Your task to perform on an android device: search for starred emails in the gmail app Image 0: 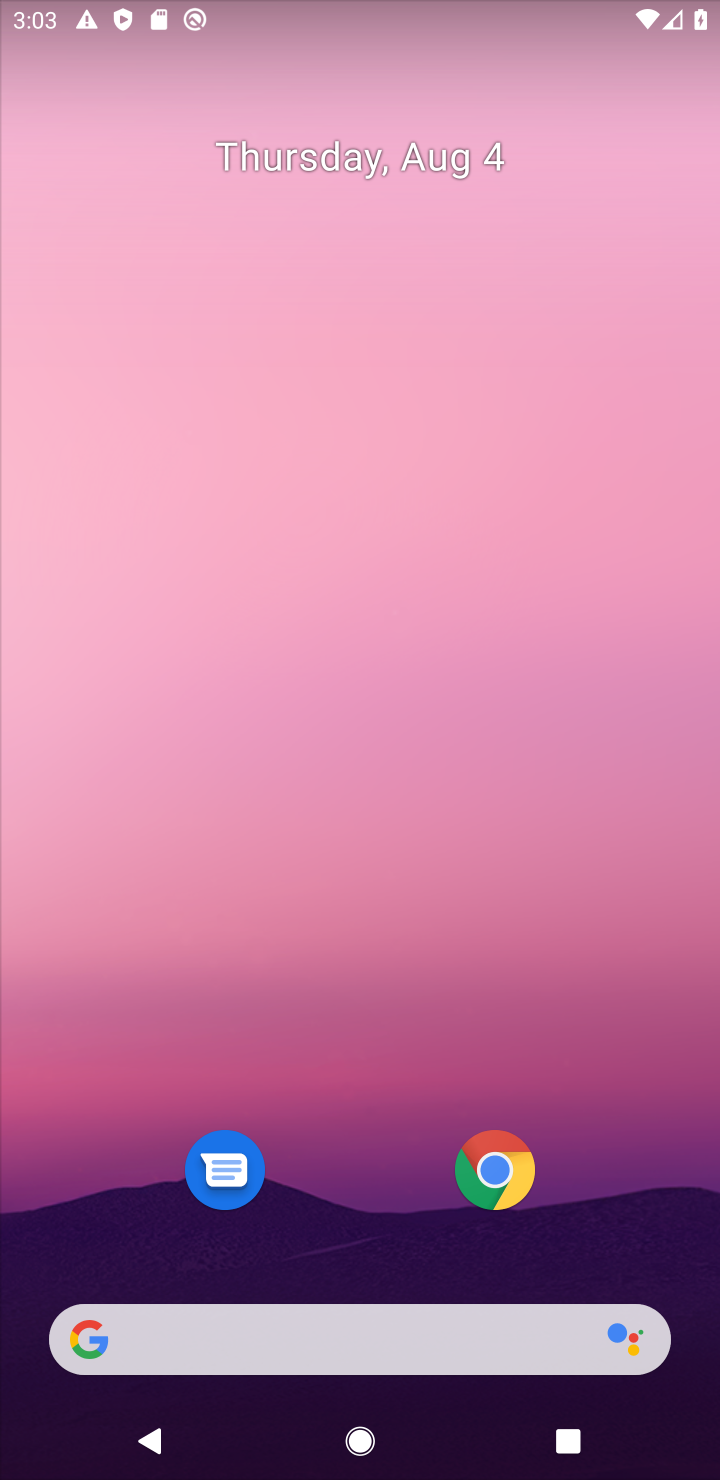
Step 0: drag from (618, 825) to (561, 198)
Your task to perform on an android device: search for starred emails in the gmail app Image 1: 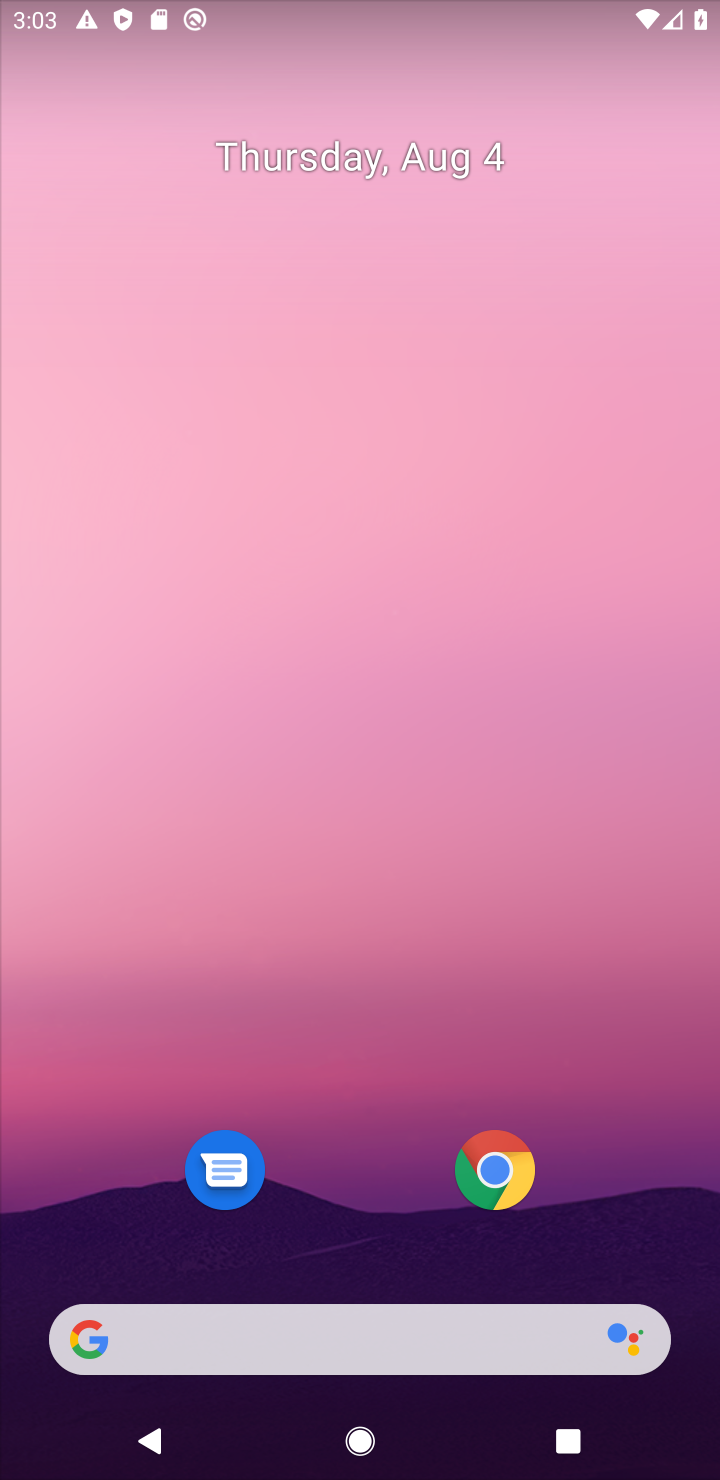
Step 1: drag from (655, 1262) to (535, 156)
Your task to perform on an android device: search for starred emails in the gmail app Image 2: 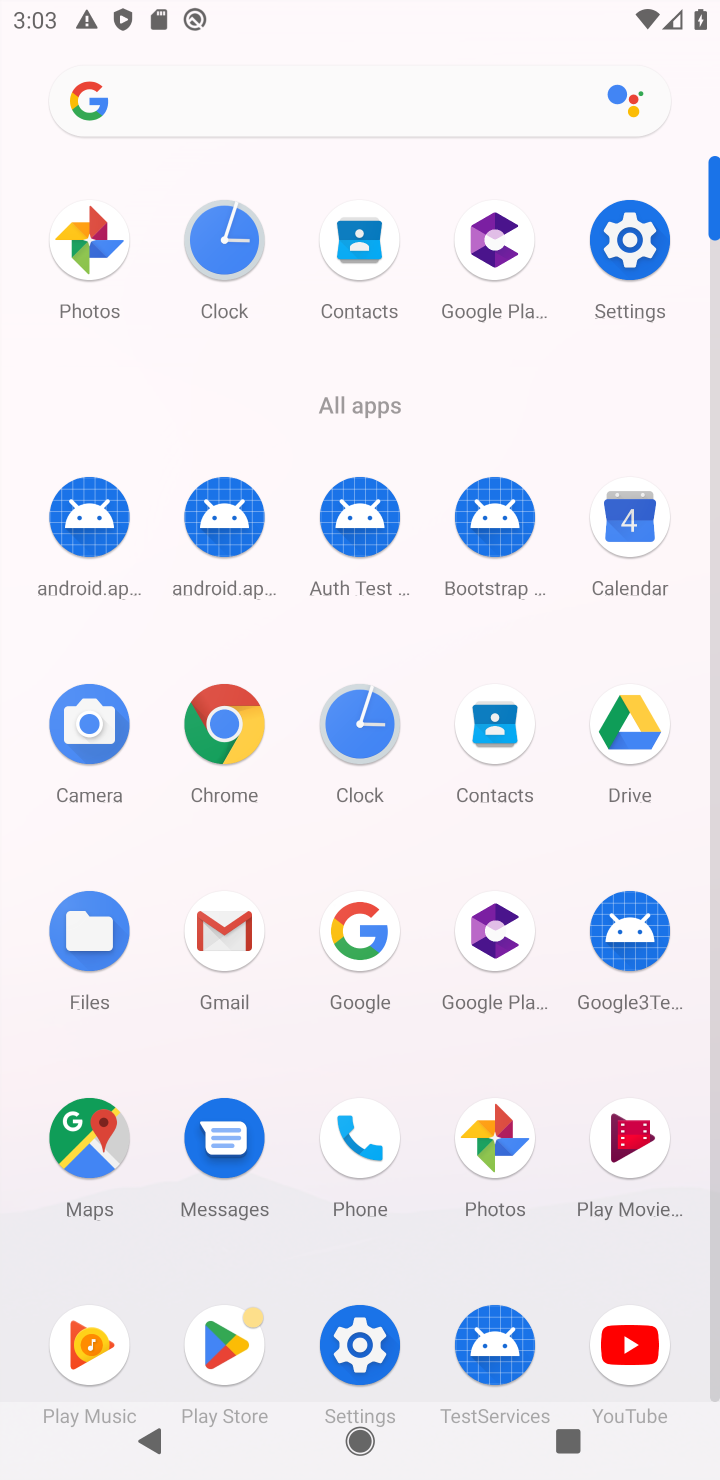
Step 2: click (225, 926)
Your task to perform on an android device: search for starred emails in the gmail app Image 3: 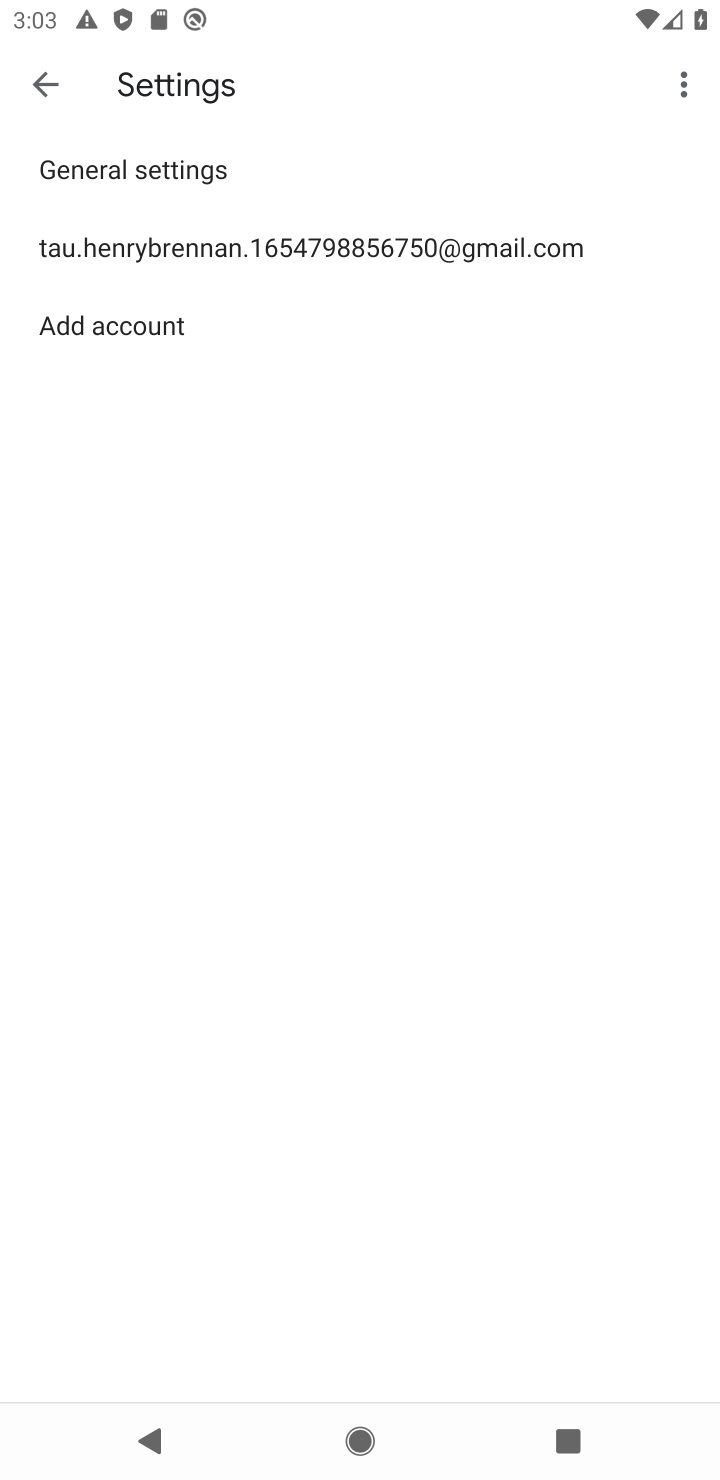
Step 3: press back button
Your task to perform on an android device: search for starred emails in the gmail app Image 4: 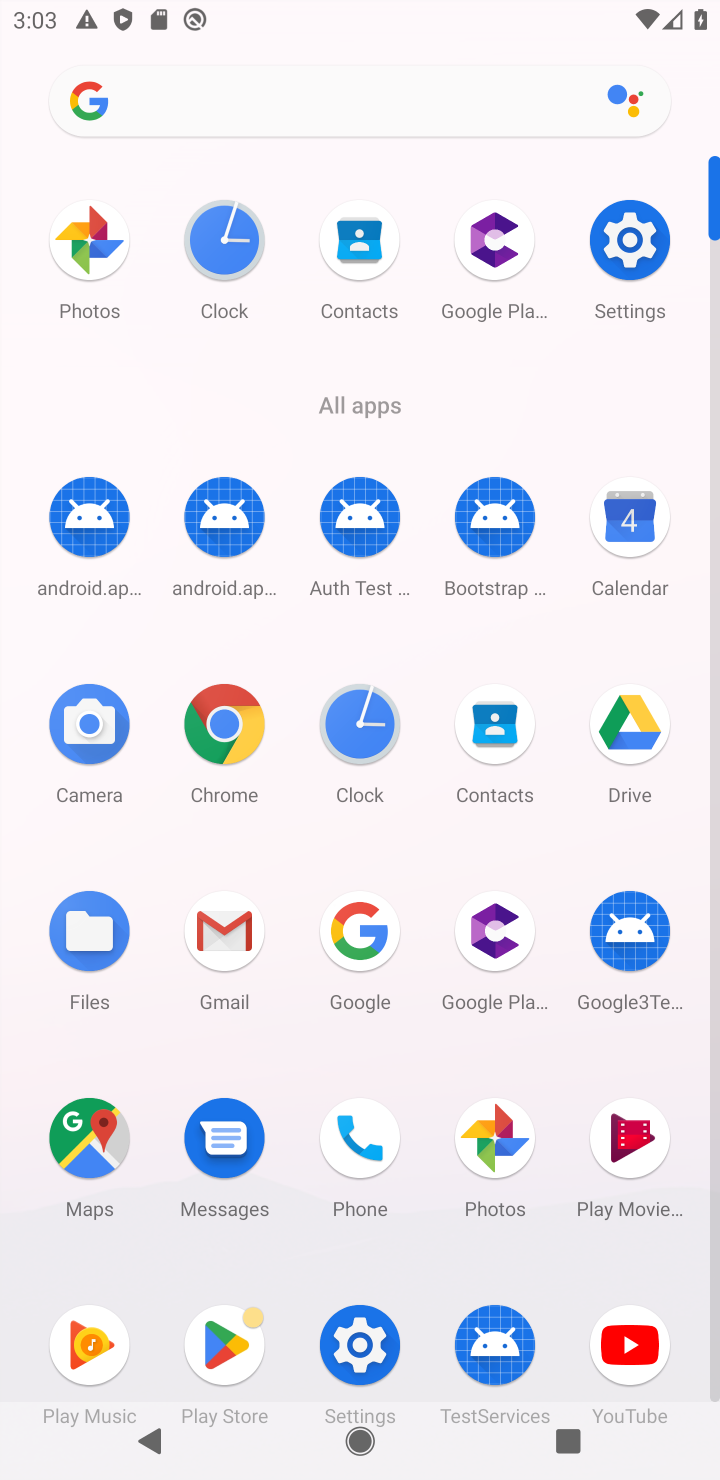
Step 4: click (218, 936)
Your task to perform on an android device: search for starred emails in the gmail app Image 5: 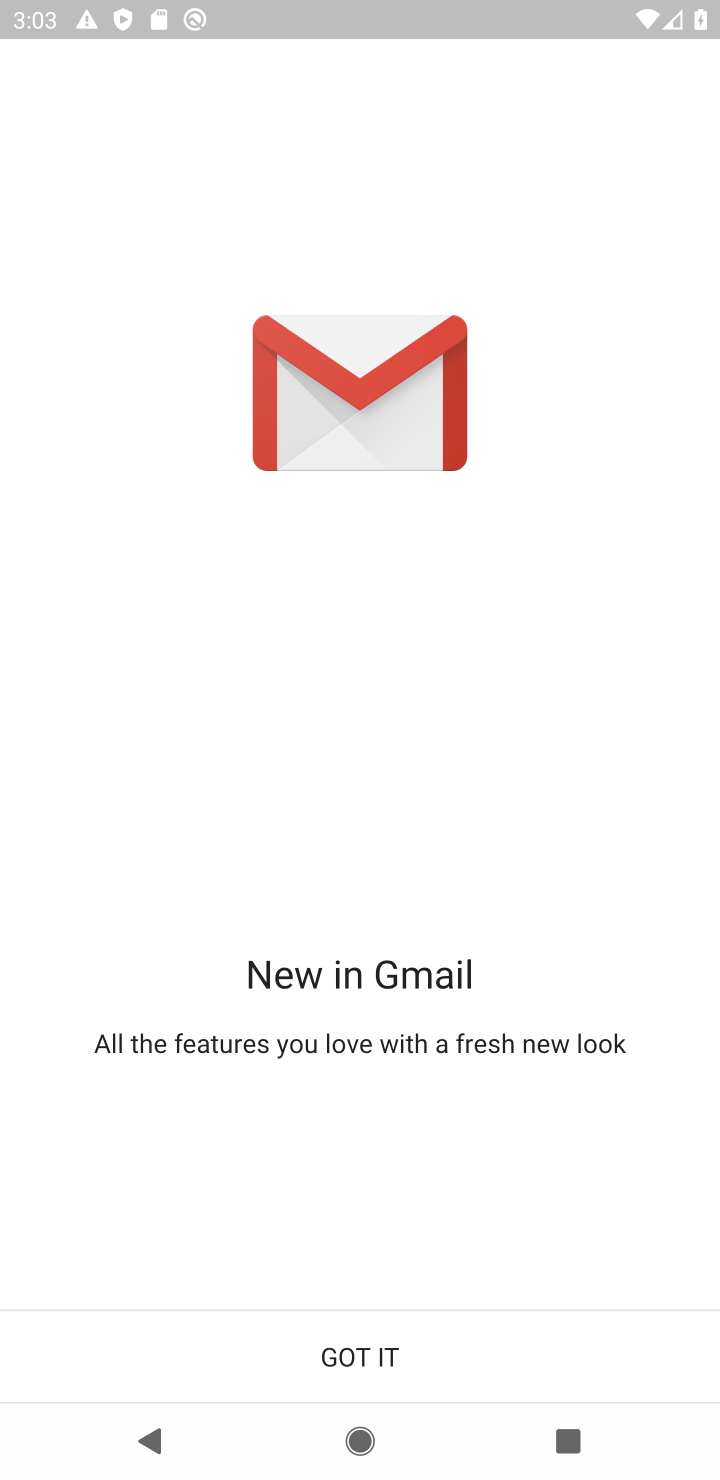
Step 5: click (363, 1345)
Your task to perform on an android device: search for starred emails in the gmail app Image 6: 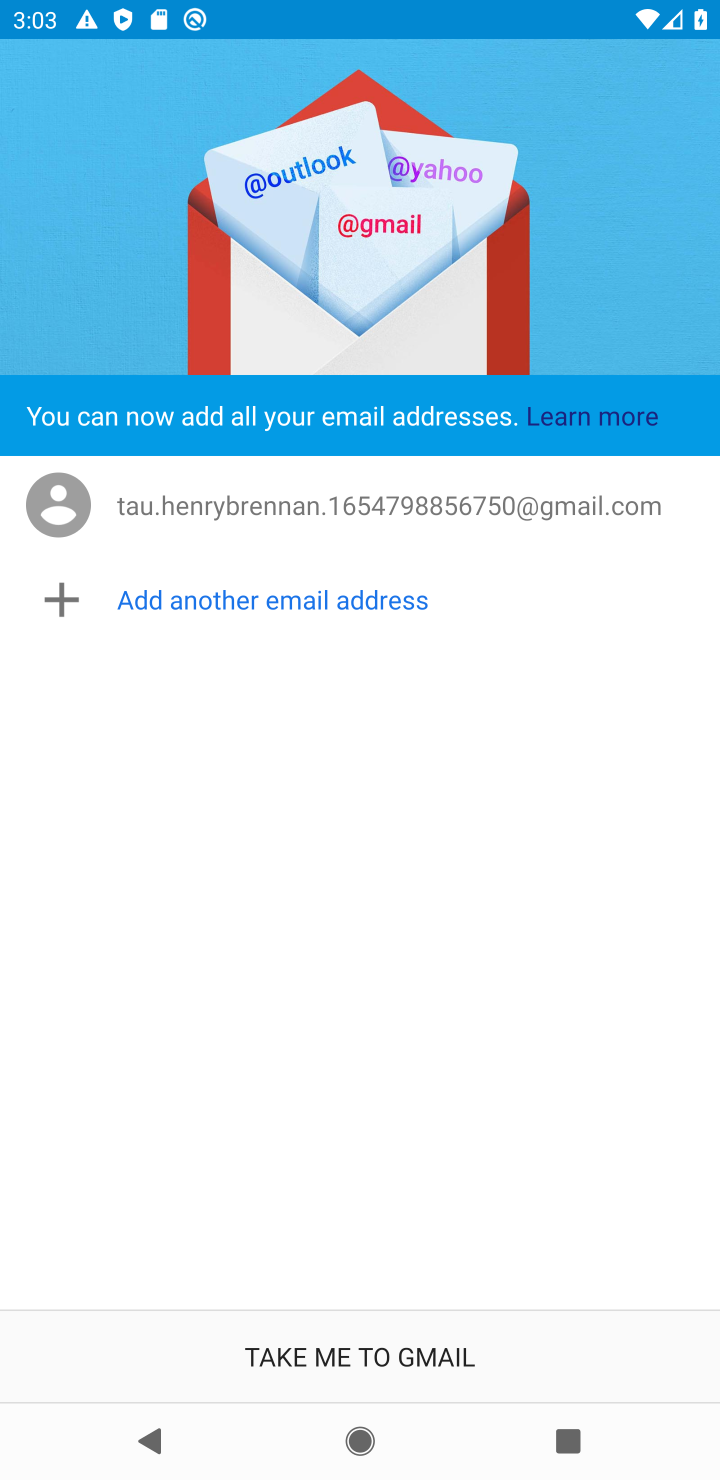
Step 6: click (344, 1353)
Your task to perform on an android device: search for starred emails in the gmail app Image 7: 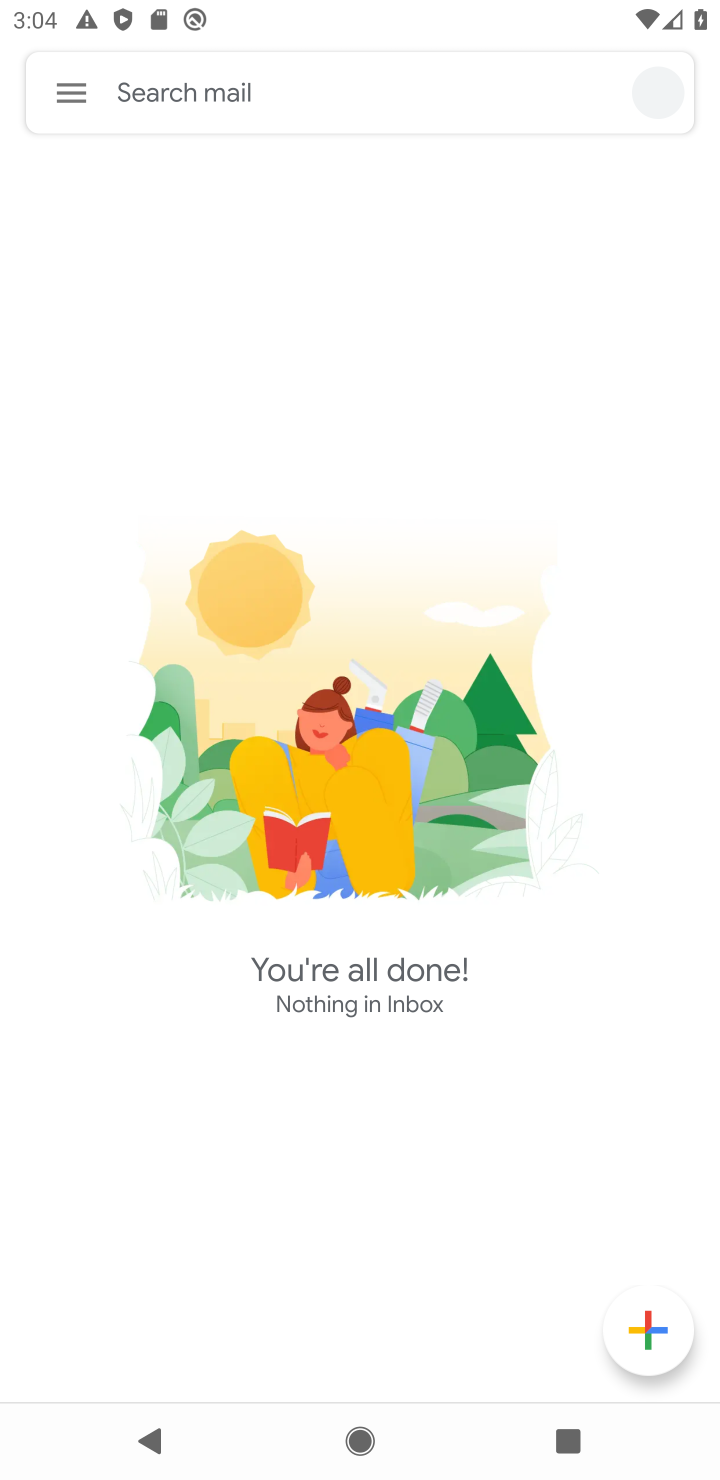
Step 7: click (57, 98)
Your task to perform on an android device: search for starred emails in the gmail app Image 8: 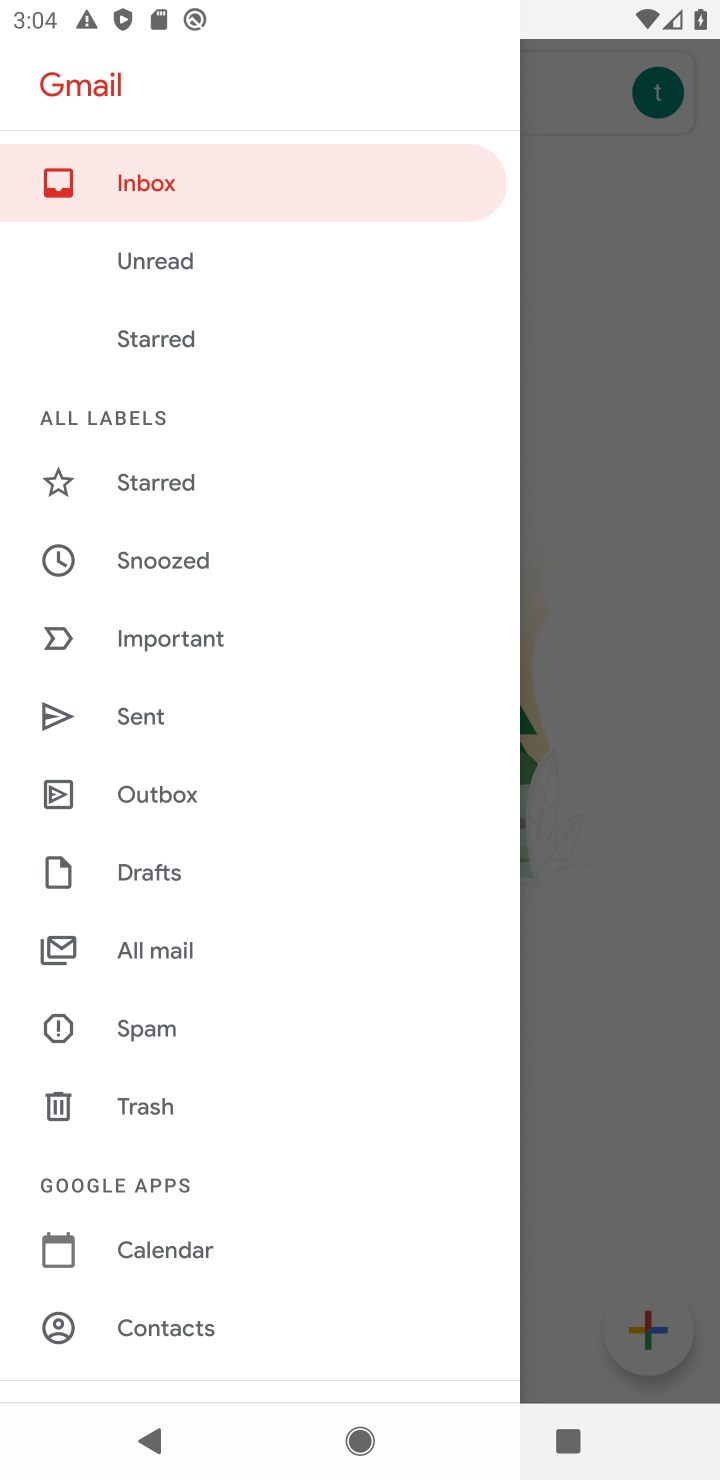
Step 8: click (159, 461)
Your task to perform on an android device: search for starred emails in the gmail app Image 9: 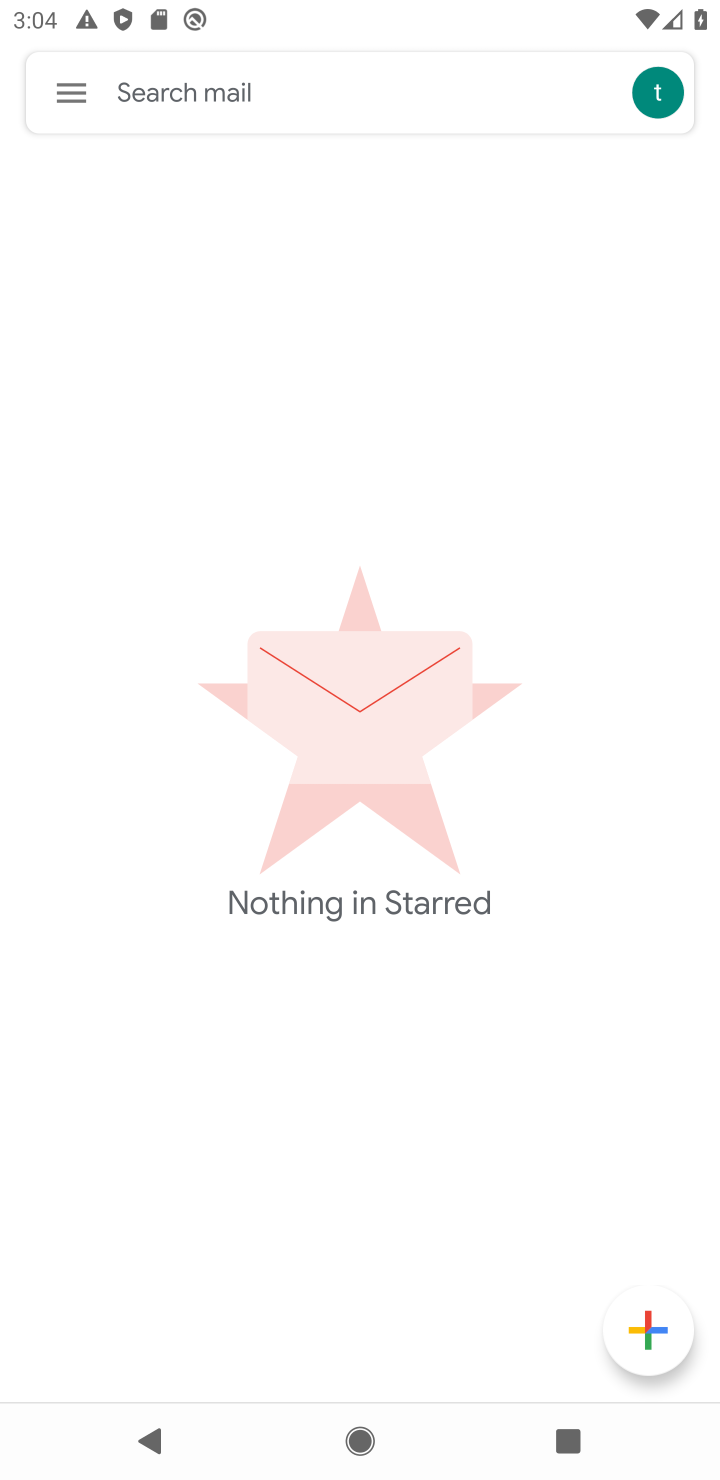
Step 9: task complete